Your task to perform on an android device: turn notification dots off Image 0: 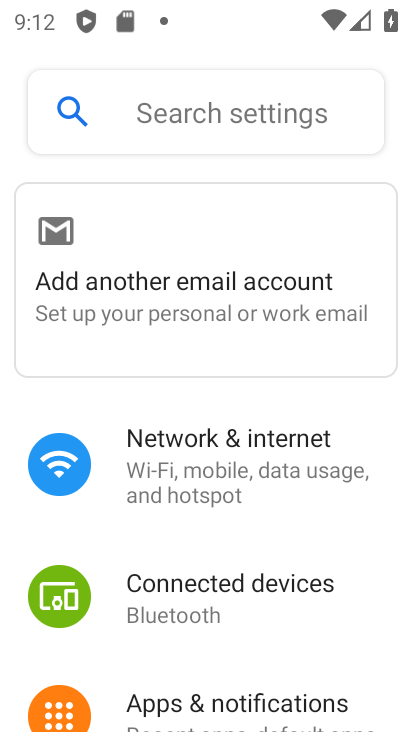
Step 0: press home button
Your task to perform on an android device: turn notification dots off Image 1: 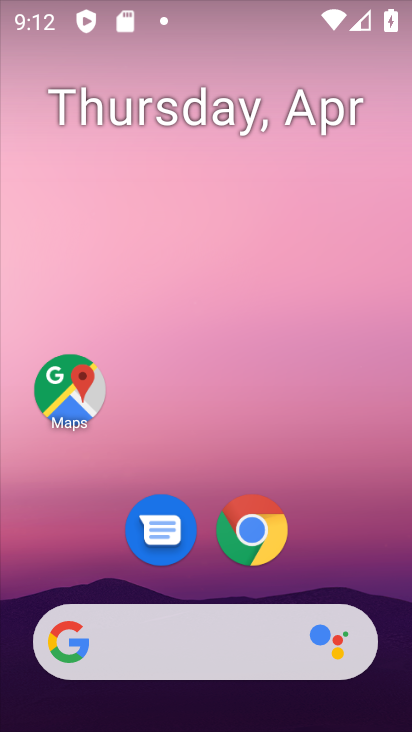
Step 1: drag from (358, 535) to (362, 142)
Your task to perform on an android device: turn notification dots off Image 2: 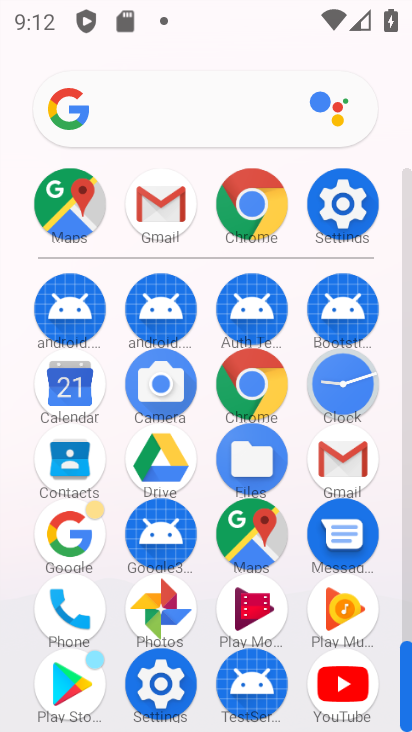
Step 2: click (343, 211)
Your task to perform on an android device: turn notification dots off Image 3: 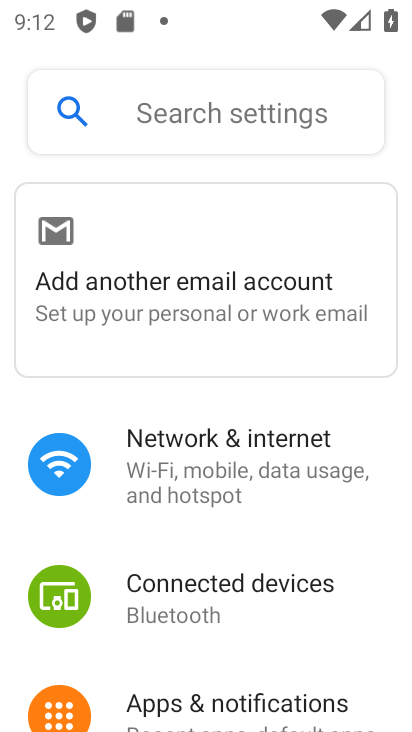
Step 3: click (242, 702)
Your task to perform on an android device: turn notification dots off Image 4: 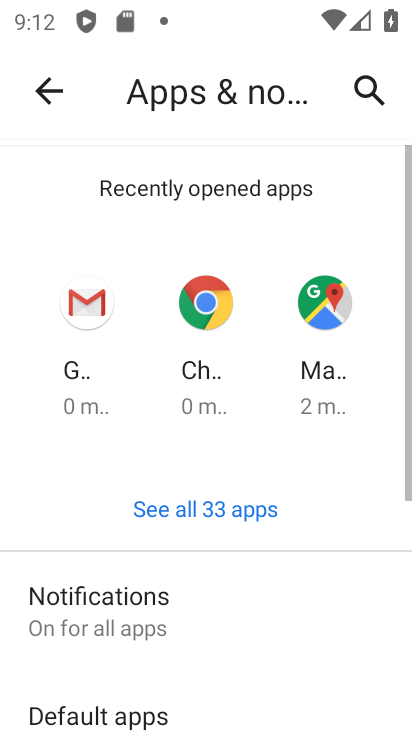
Step 4: click (237, 607)
Your task to perform on an android device: turn notification dots off Image 5: 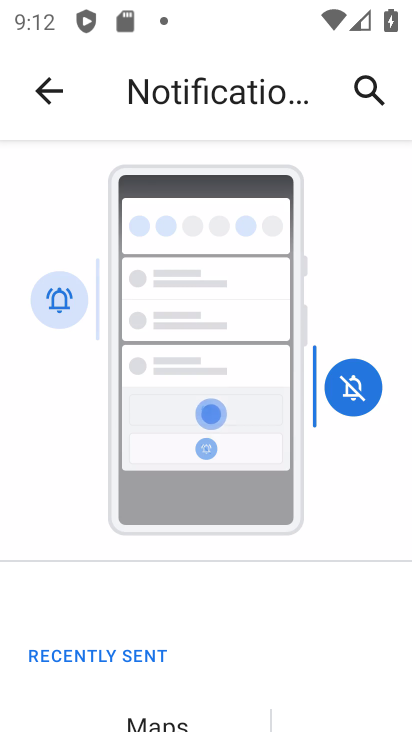
Step 5: drag from (196, 594) to (232, 258)
Your task to perform on an android device: turn notification dots off Image 6: 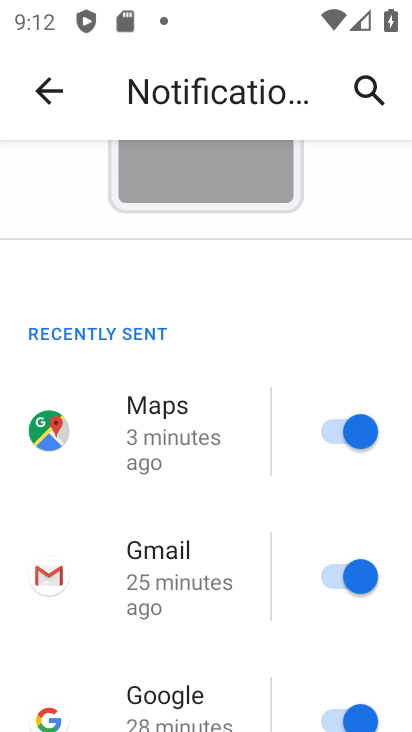
Step 6: drag from (219, 403) to (280, 103)
Your task to perform on an android device: turn notification dots off Image 7: 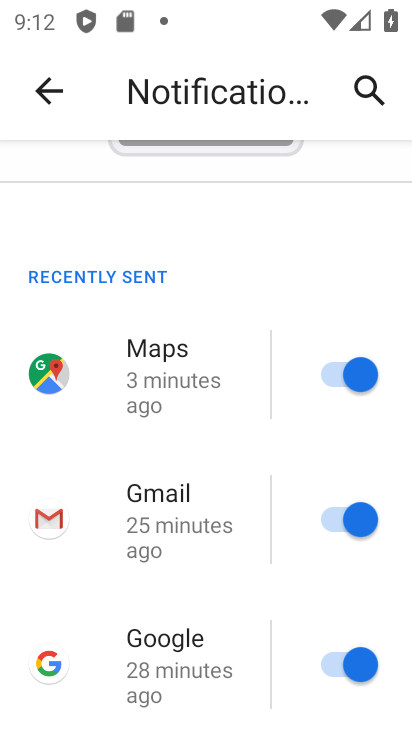
Step 7: drag from (182, 570) to (215, 286)
Your task to perform on an android device: turn notification dots off Image 8: 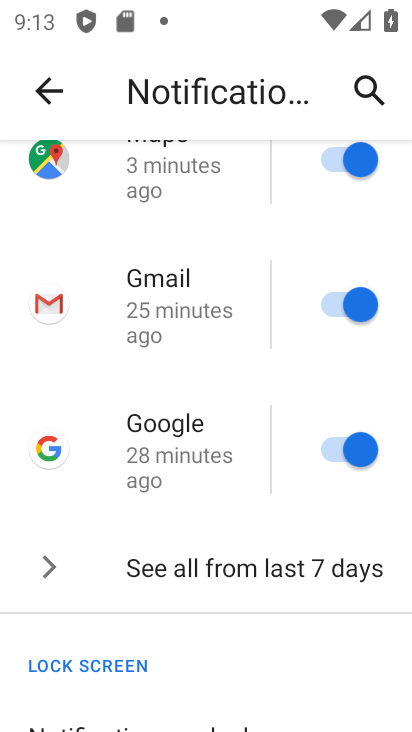
Step 8: drag from (217, 528) to (242, 275)
Your task to perform on an android device: turn notification dots off Image 9: 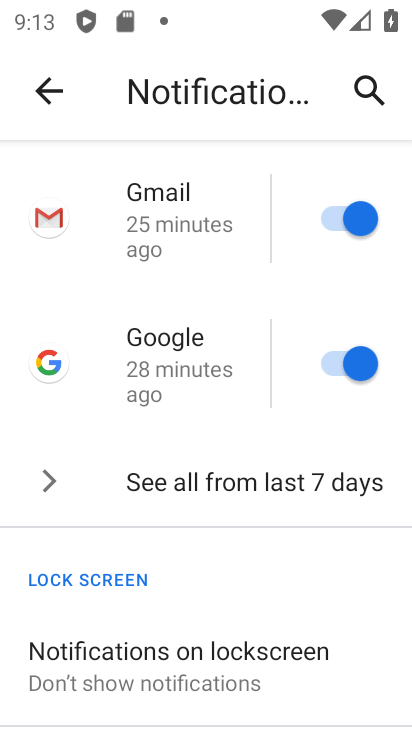
Step 9: drag from (209, 391) to (215, 332)
Your task to perform on an android device: turn notification dots off Image 10: 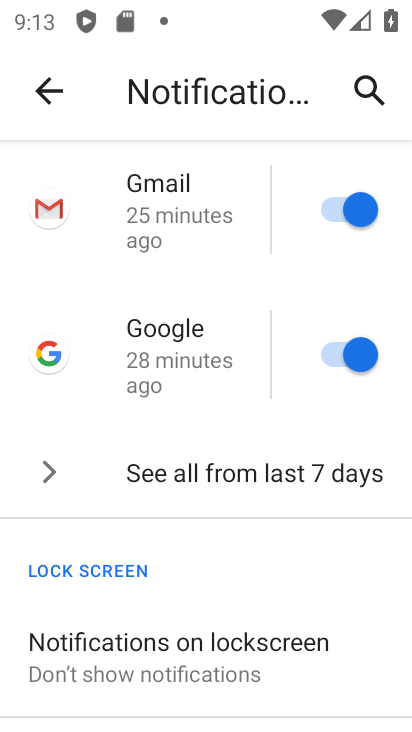
Step 10: drag from (189, 567) to (230, 263)
Your task to perform on an android device: turn notification dots off Image 11: 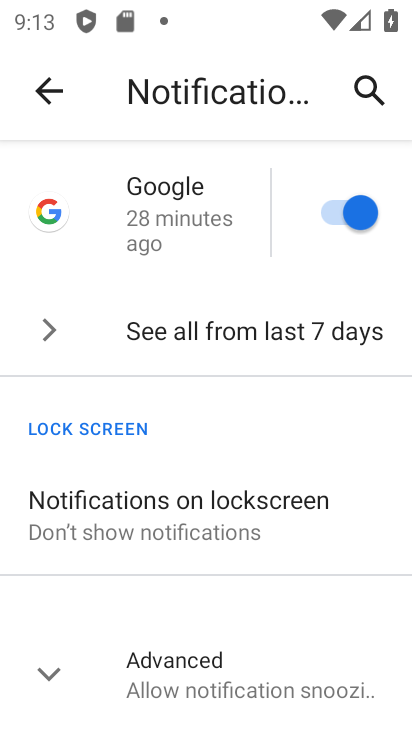
Step 11: click (82, 673)
Your task to perform on an android device: turn notification dots off Image 12: 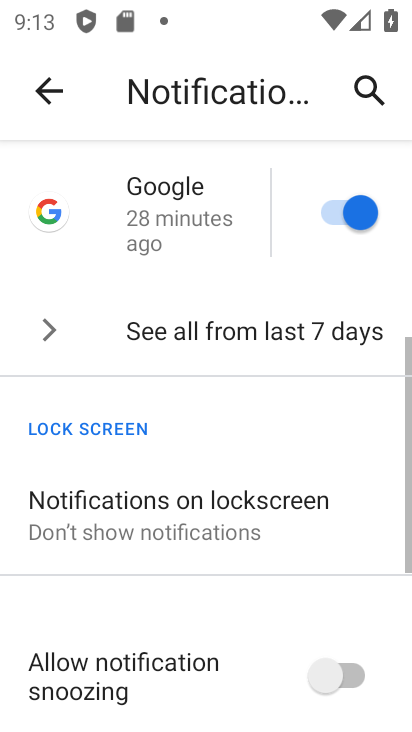
Step 12: drag from (133, 559) to (163, 246)
Your task to perform on an android device: turn notification dots off Image 13: 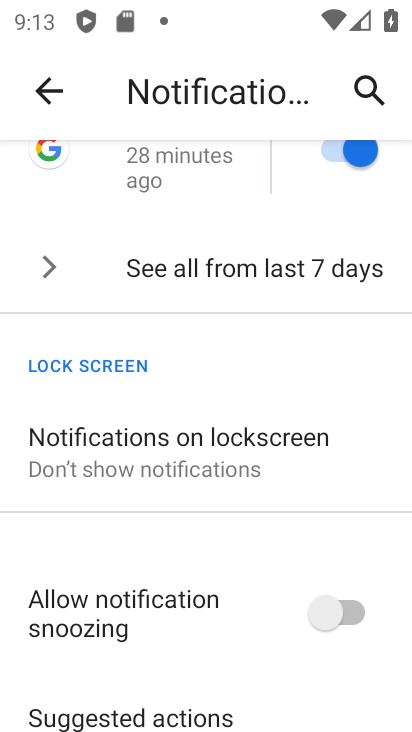
Step 13: drag from (301, 564) to (290, 183)
Your task to perform on an android device: turn notification dots off Image 14: 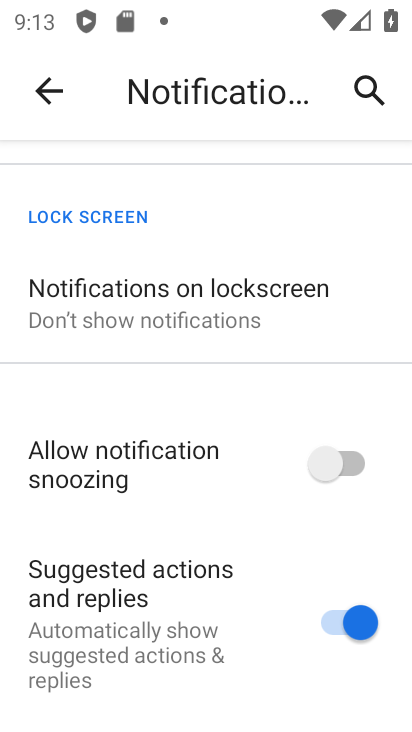
Step 14: drag from (156, 606) to (134, 163)
Your task to perform on an android device: turn notification dots off Image 15: 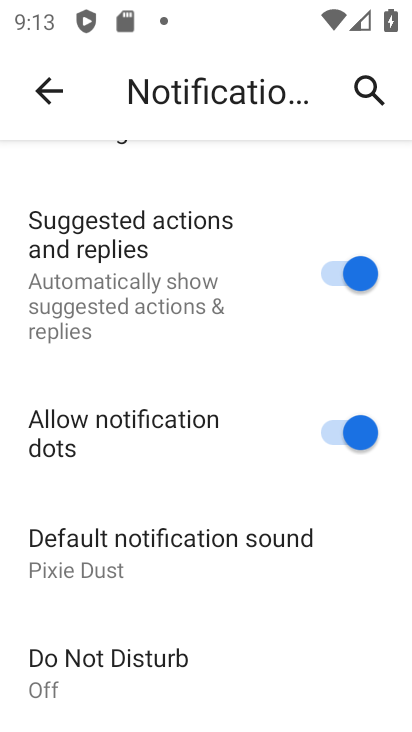
Step 15: click (284, 423)
Your task to perform on an android device: turn notification dots off Image 16: 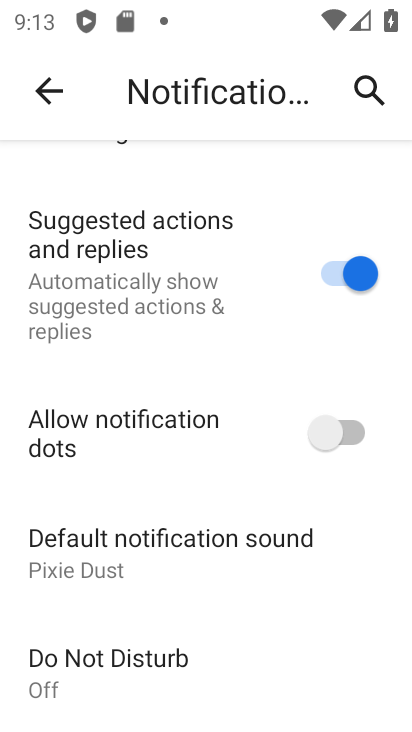
Step 16: task complete